Your task to perform on an android device: What is the recent news? Image 0: 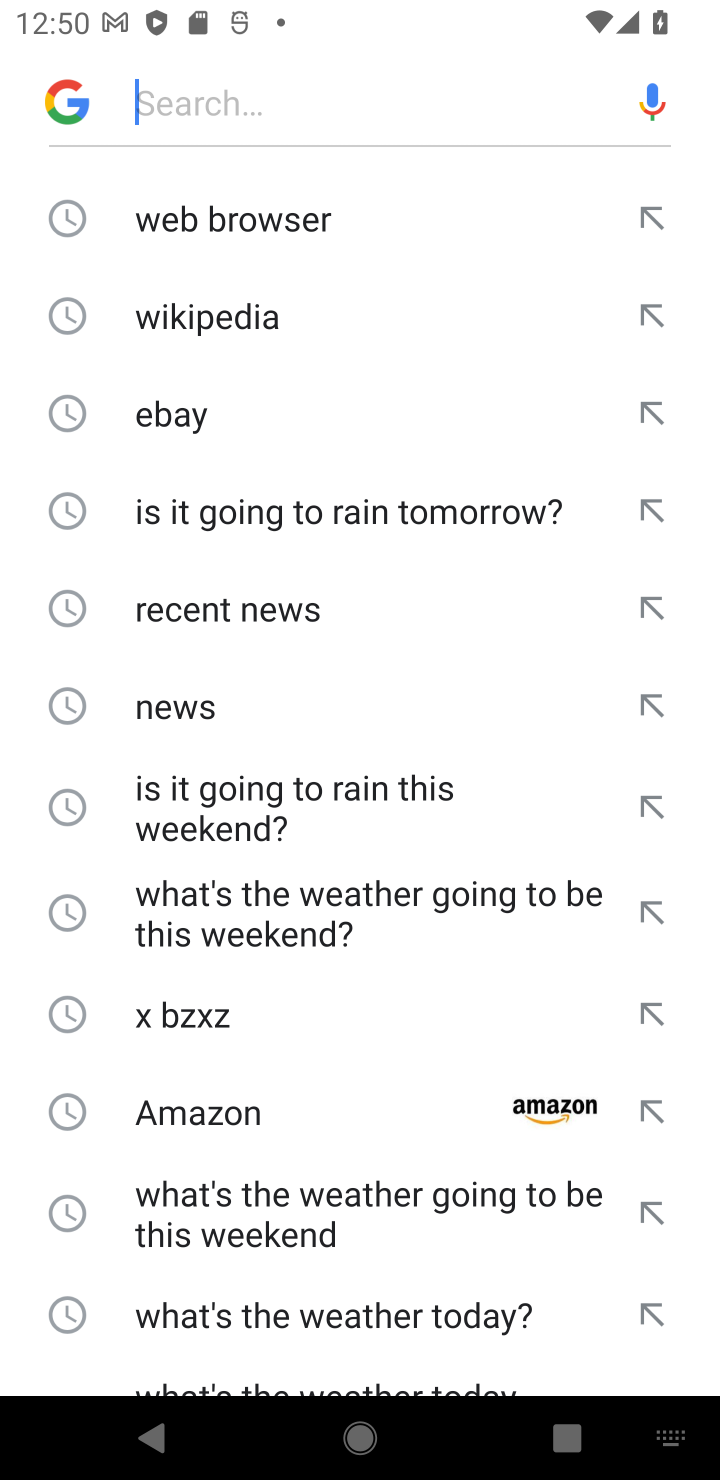
Step 0: press home button
Your task to perform on an android device: What is the recent news? Image 1: 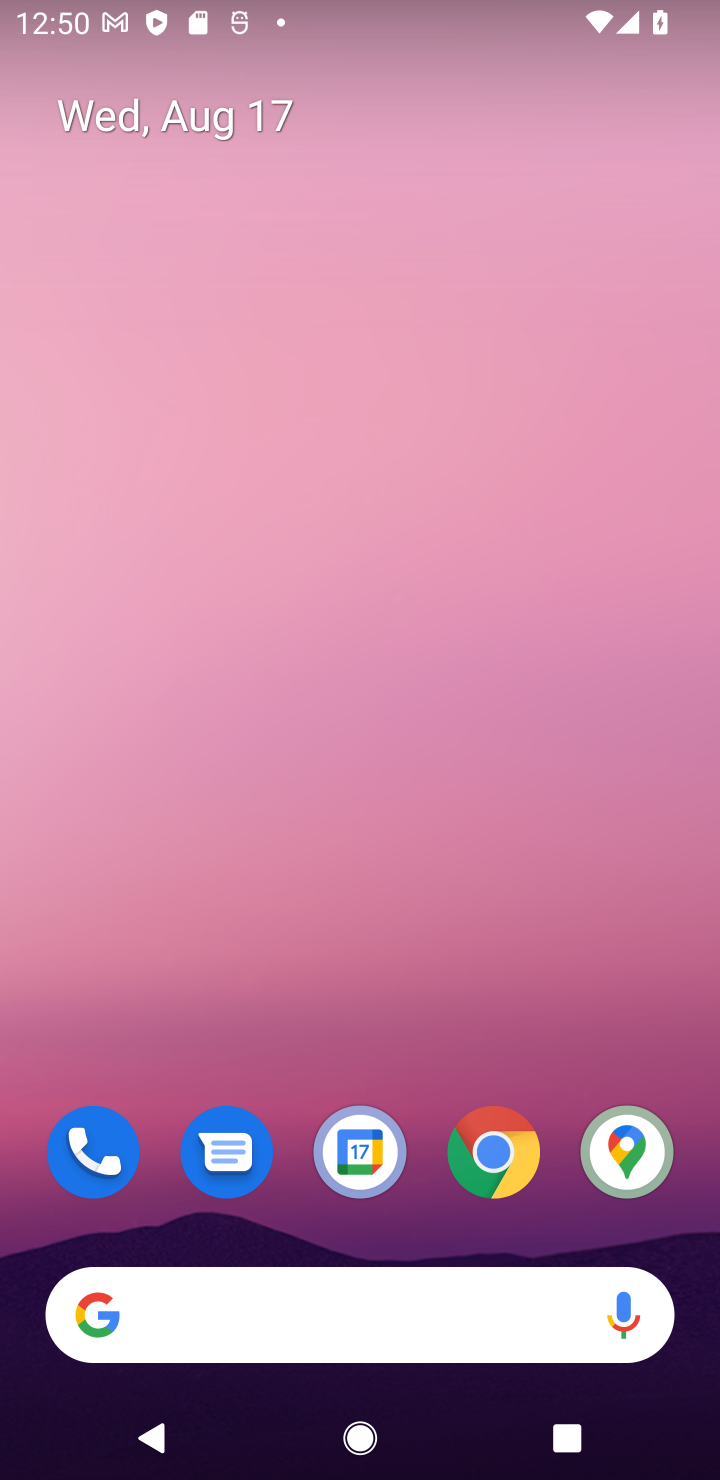
Step 1: drag from (510, 1007) to (166, 40)
Your task to perform on an android device: What is the recent news? Image 2: 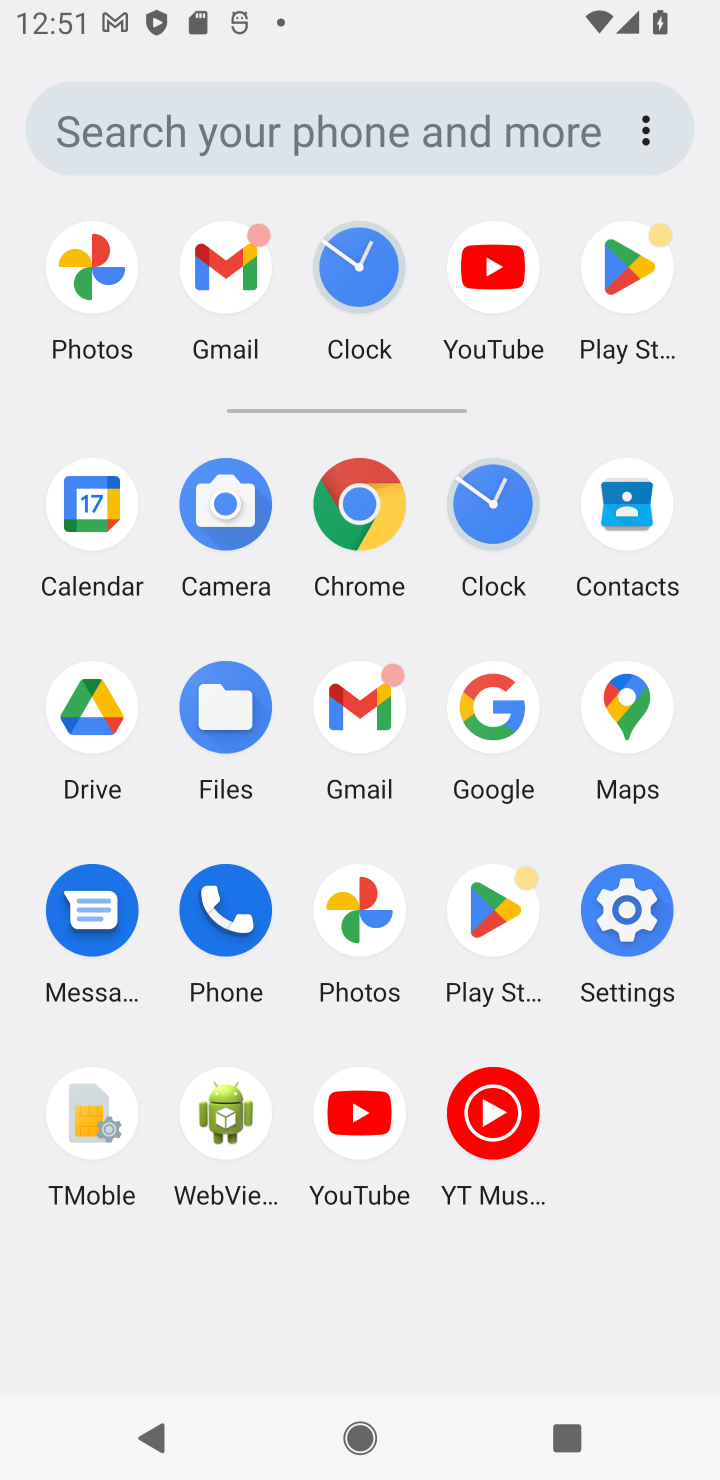
Step 2: click (508, 681)
Your task to perform on an android device: What is the recent news? Image 3: 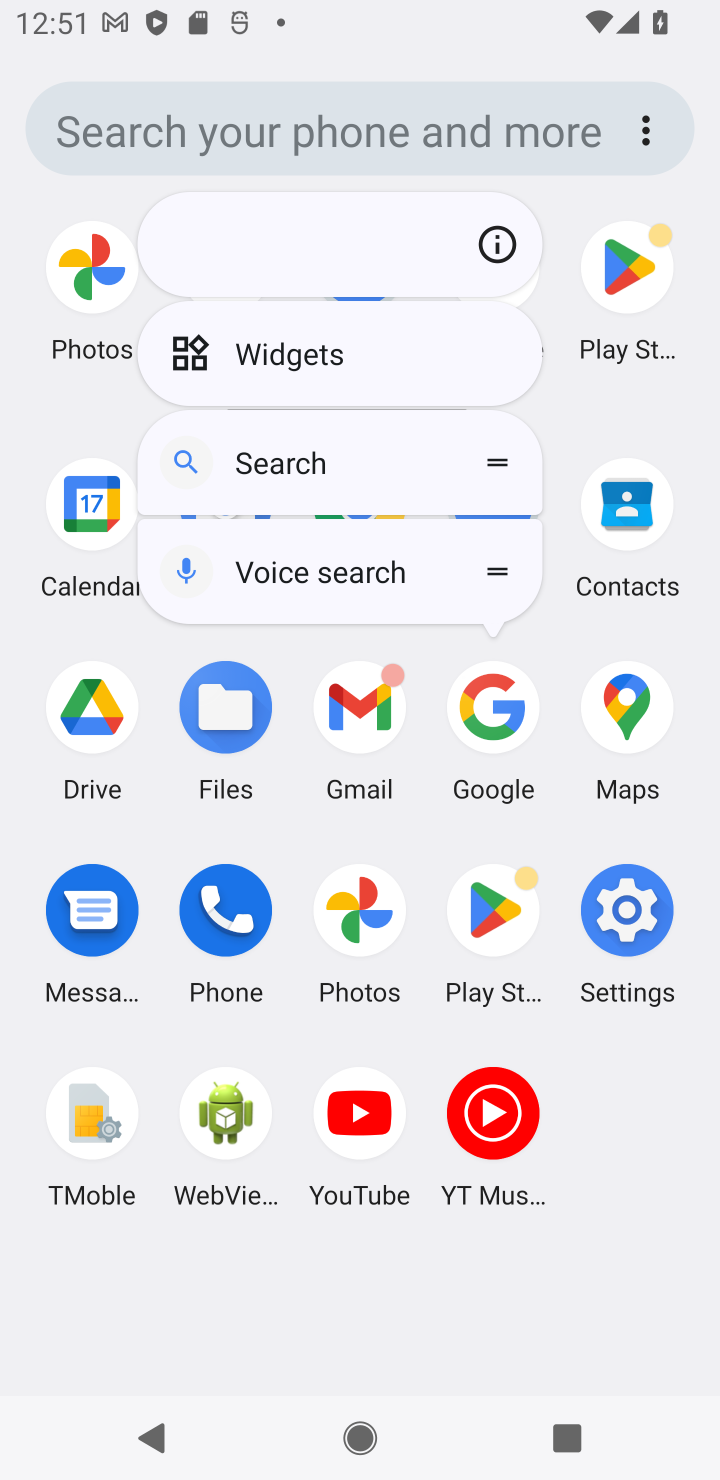
Step 3: click (508, 681)
Your task to perform on an android device: What is the recent news? Image 4: 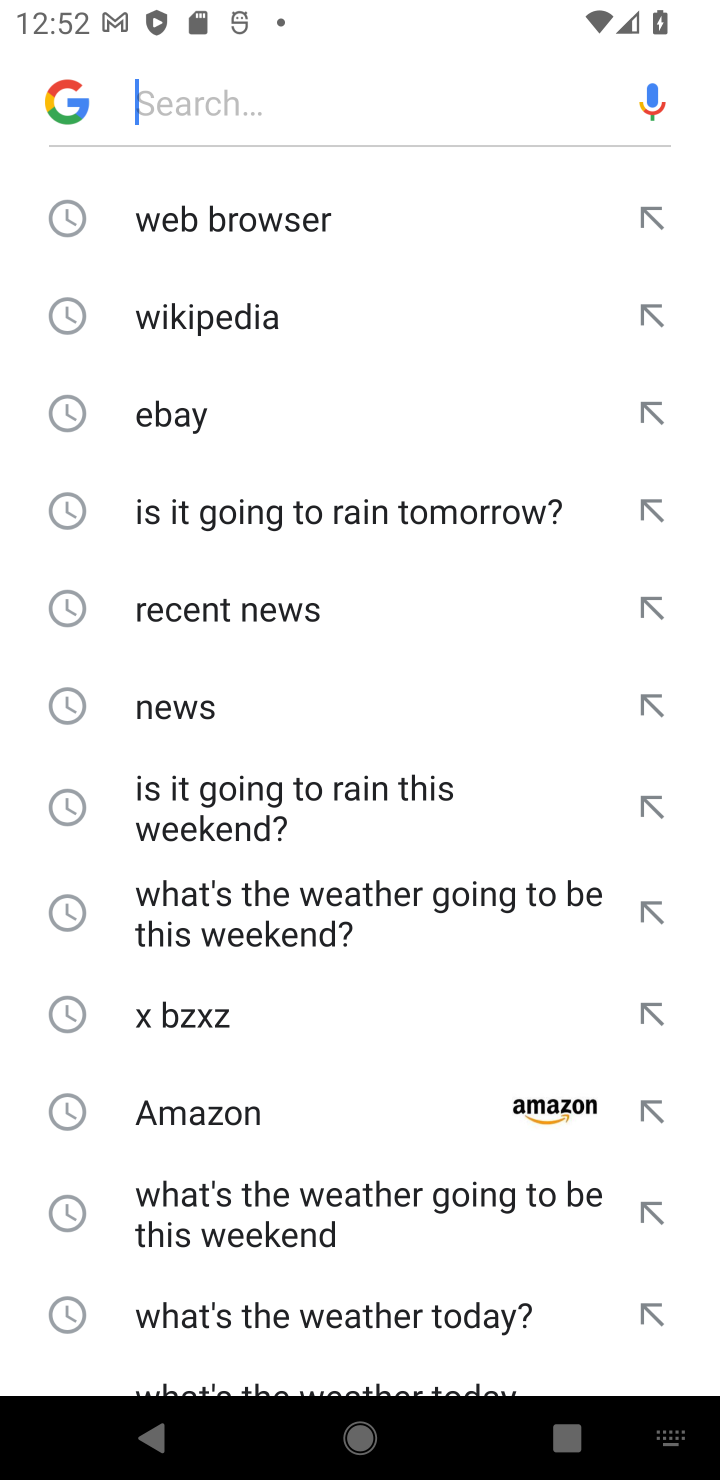
Step 4: click (231, 606)
Your task to perform on an android device: What is the recent news? Image 5: 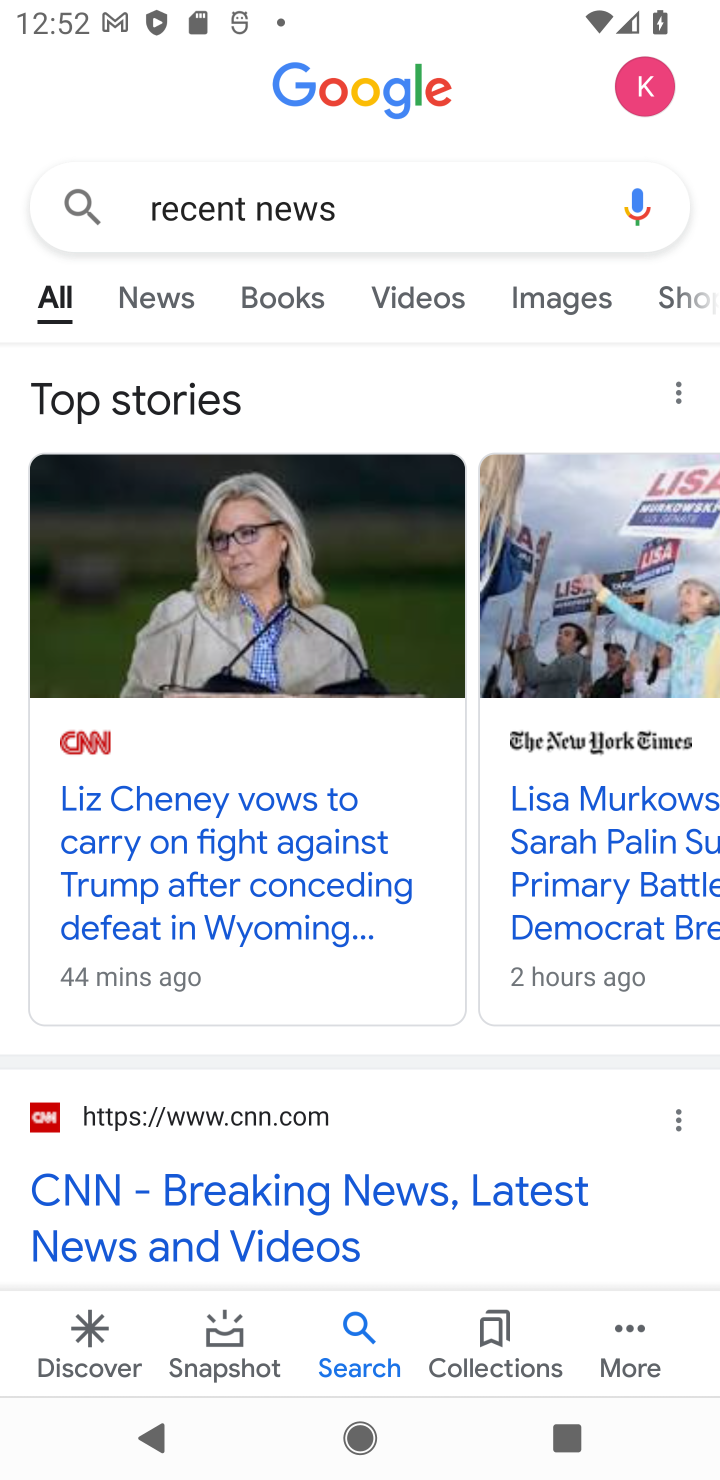
Step 5: task complete